Your task to perform on an android device: Clear the shopping cart on ebay.com. Add razer thresher to the cart on ebay.com, then select checkout. Image 0: 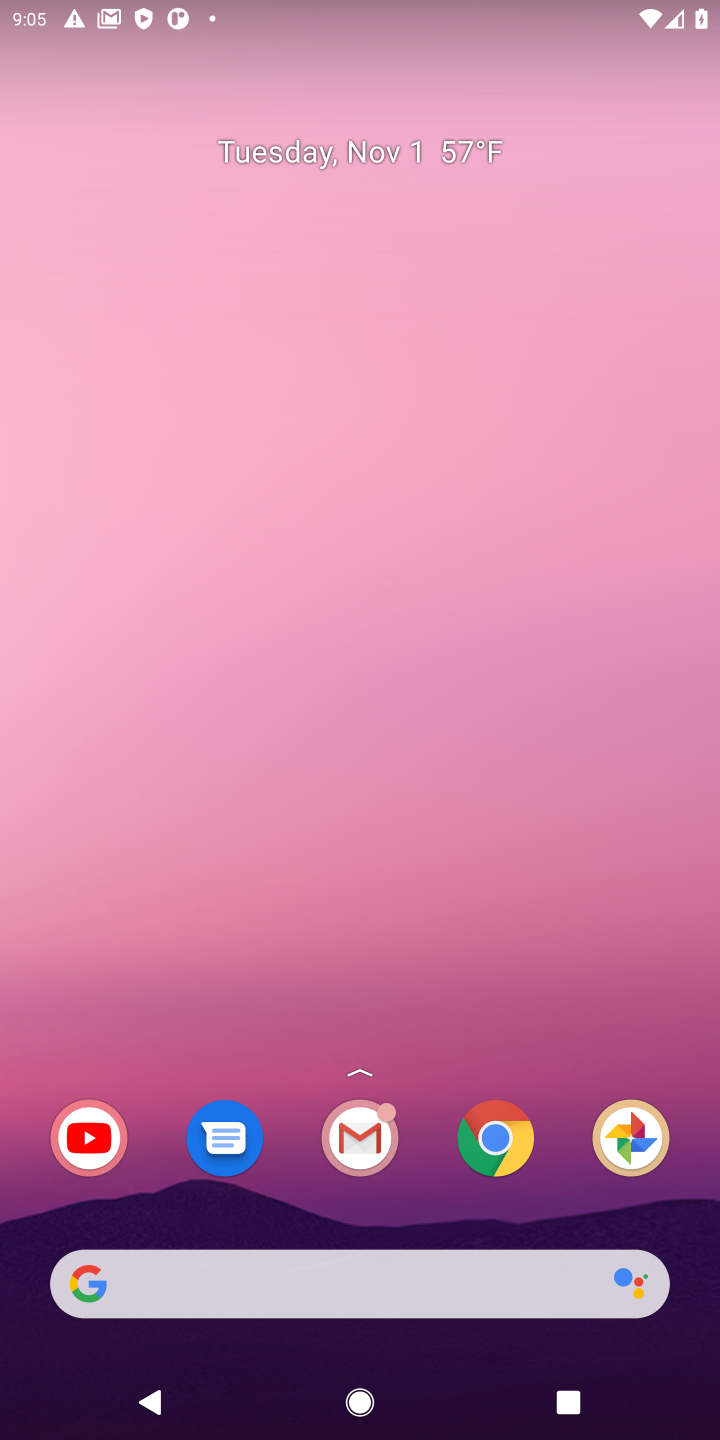
Step 0: click (516, 1150)
Your task to perform on an android device: Clear the shopping cart on ebay.com. Add razer thresher to the cart on ebay.com, then select checkout. Image 1: 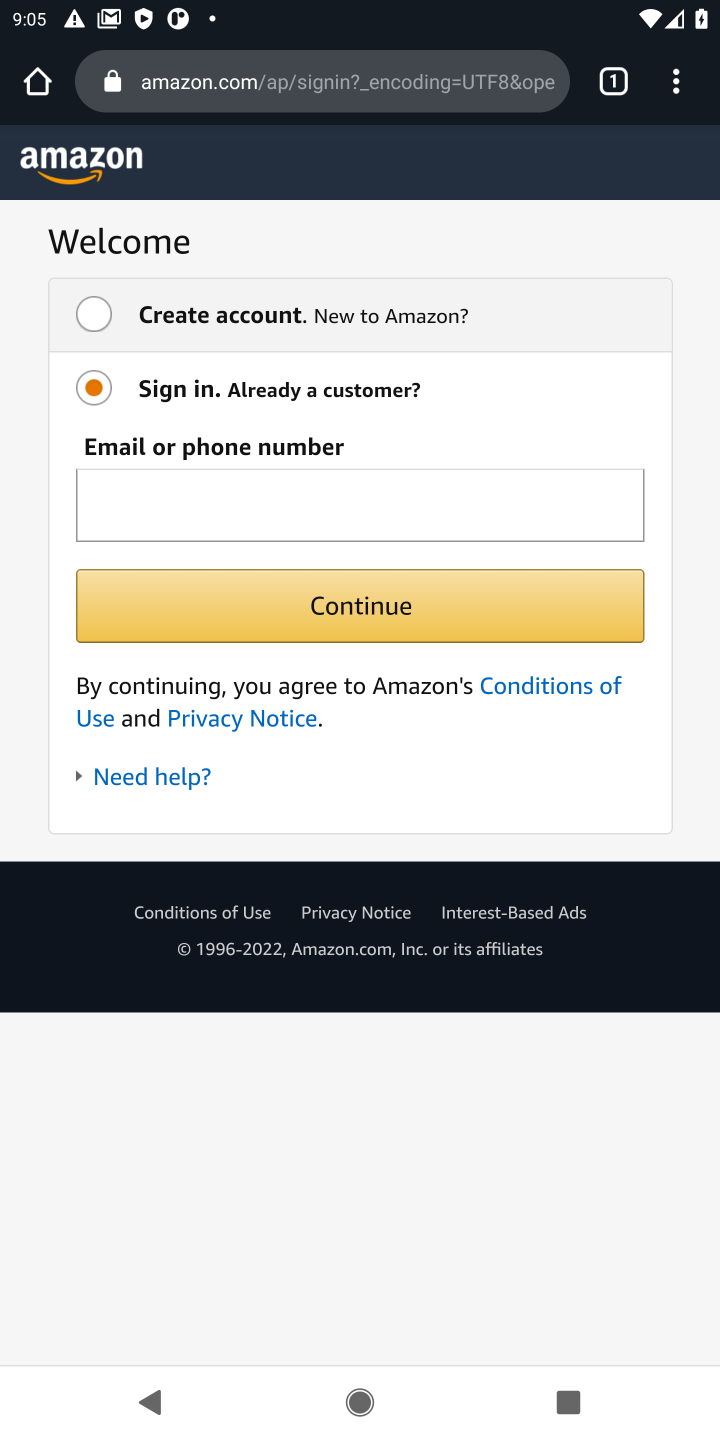
Step 1: click (298, 96)
Your task to perform on an android device: Clear the shopping cart on ebay.com. Add razer thresher to the cart on ebay.com, then select checkout. Image 2: 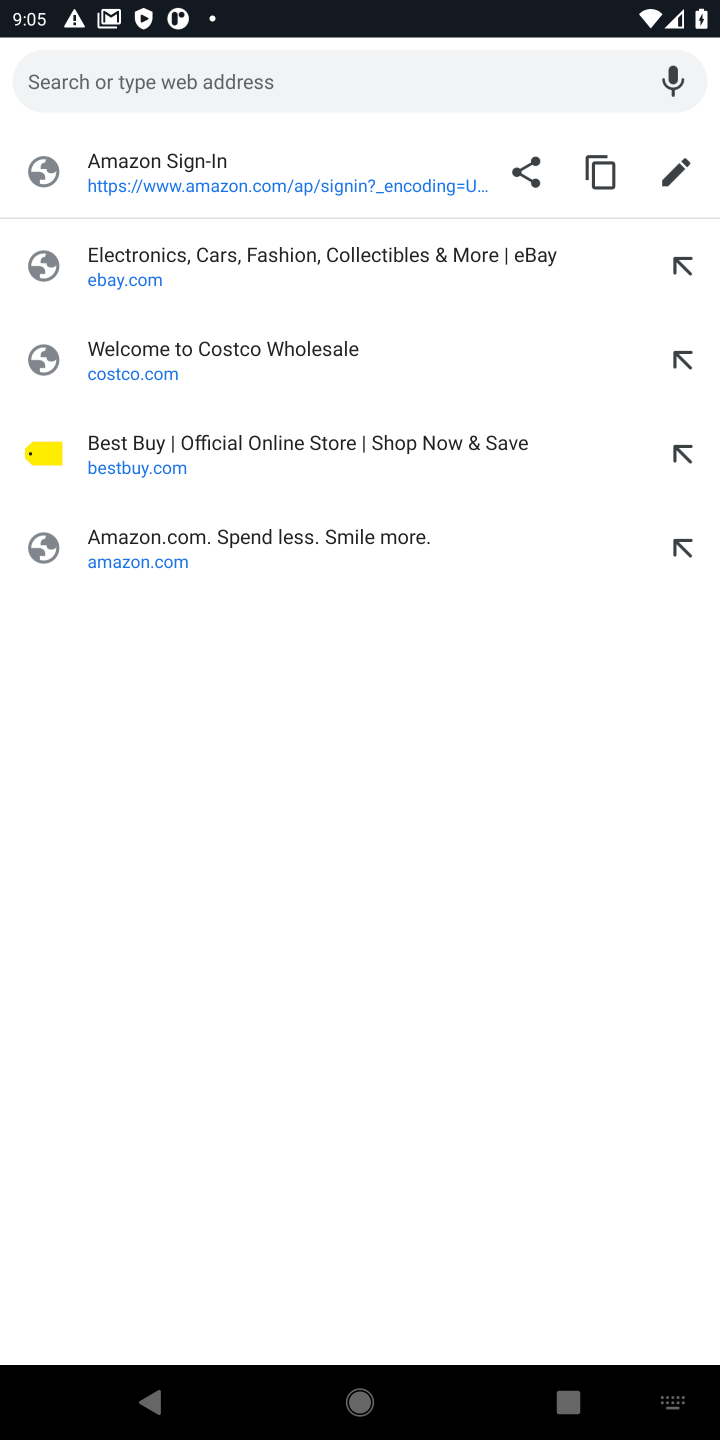
Step 2: type " ebay.com"
Your task to perform on an android device: Clear the shopping cart on ebay.com. Add razer thresher to the cart on ebay.com, then select checkout. Image 3: 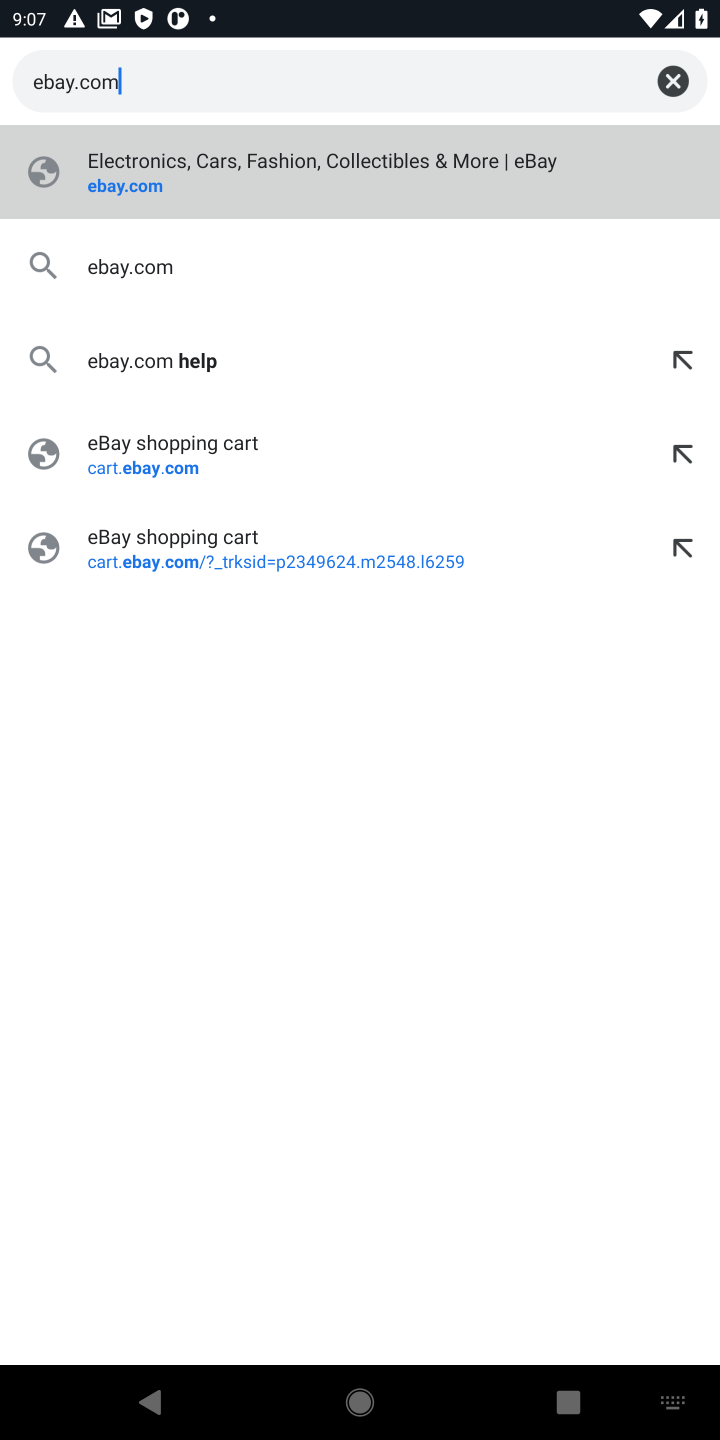
Step 3: click (85, 203)
Your task to perform on an android device: Clear the shopping cart on ebay.com. Add razer thresher to the cart on ebay.com, then select checkout. Image 4: 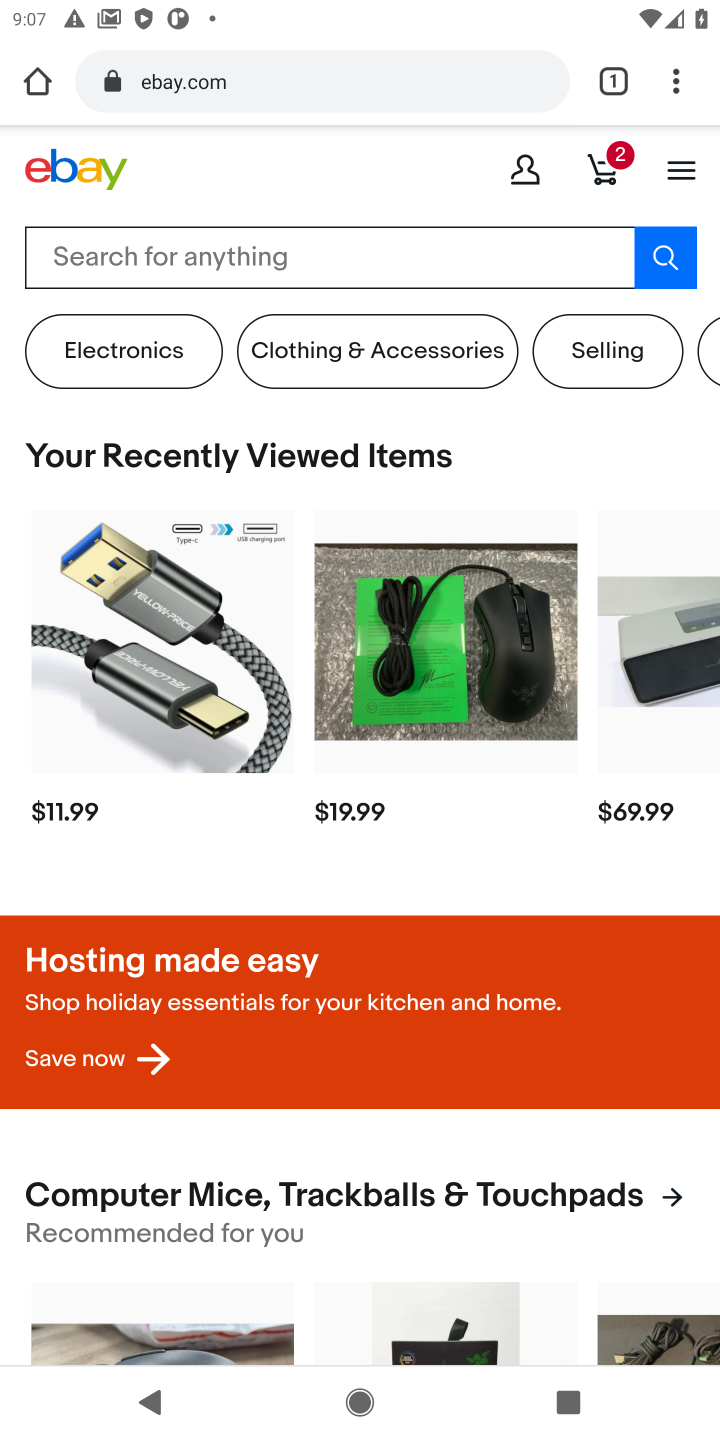
Step 4: click (617, 160)
Your task to perform on an android device: Clear the shopping cart on ebay.com. Add razer thresher to the cart on ebay.com, then select checkout. Image 5: 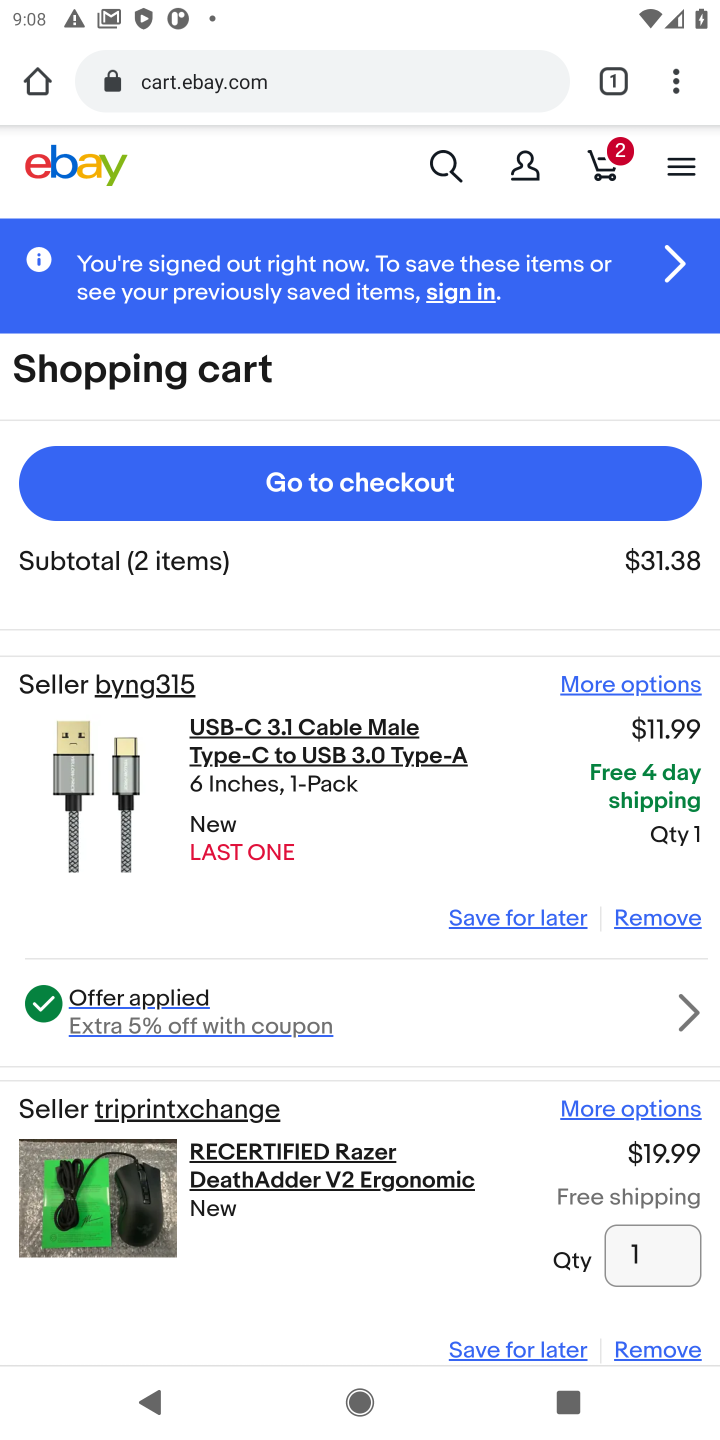
Step 5: click (640, 919)
Your task to perform on an android device: Clear the shopping cart on ebay.com. Add razer thresher to the cart on ebay.com, then select checkout. Image 6: 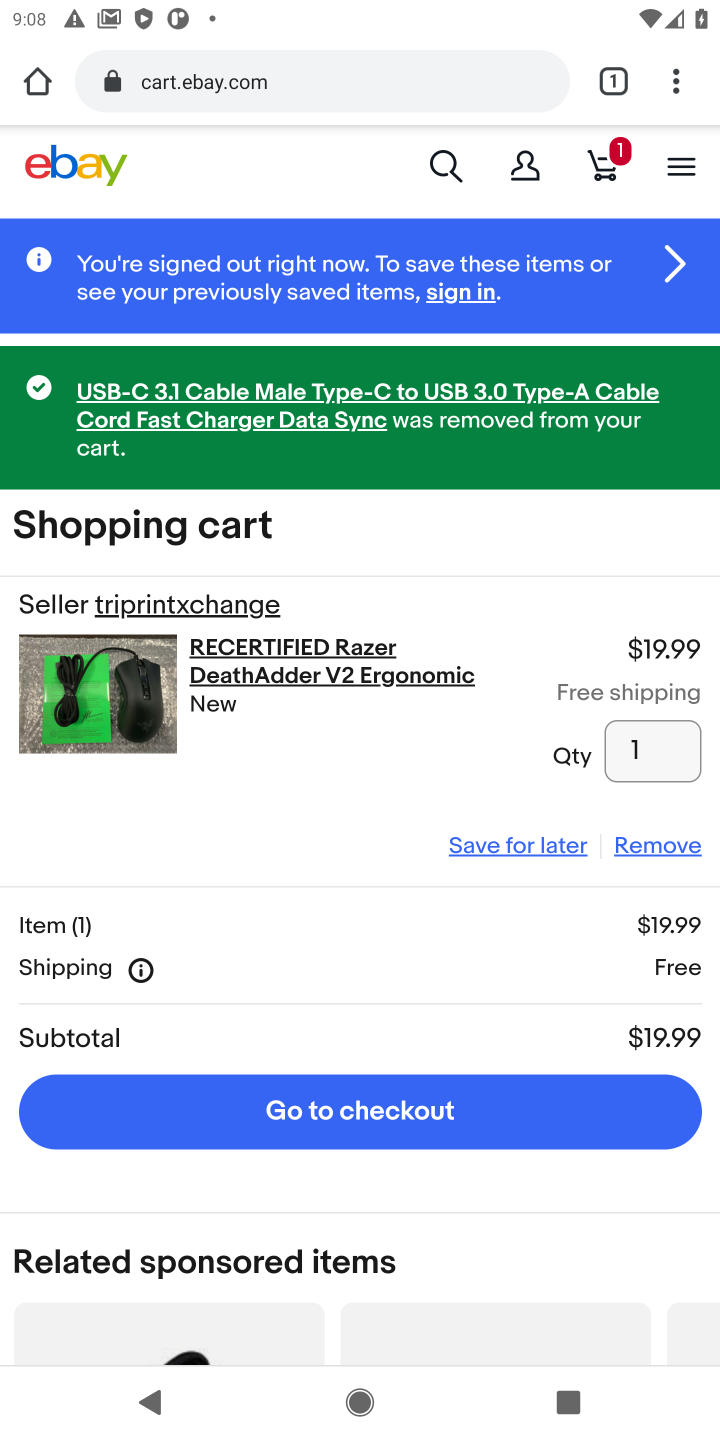
Step 6: click (647, 856)
Your task to perform on an android device: Clear the shopping cart on ebay.com. Add razer thresher to the cart on ebay.com, then select checkout. Image 7: 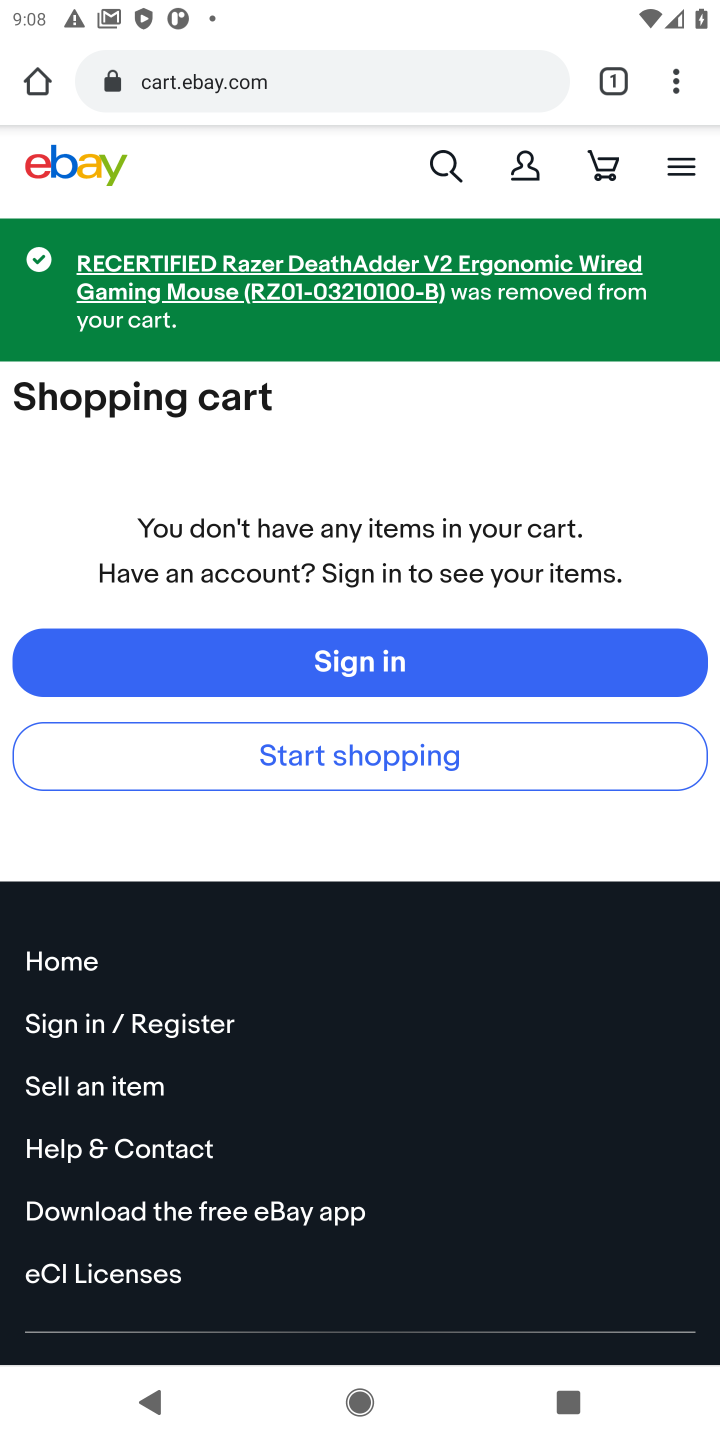
Step 7: click (447, 169)
Your task to perform on an android device: Clear the shopping cart on ebay.com. Add razer thresher to the cart on ebay.com, then select checkout. Image 8: 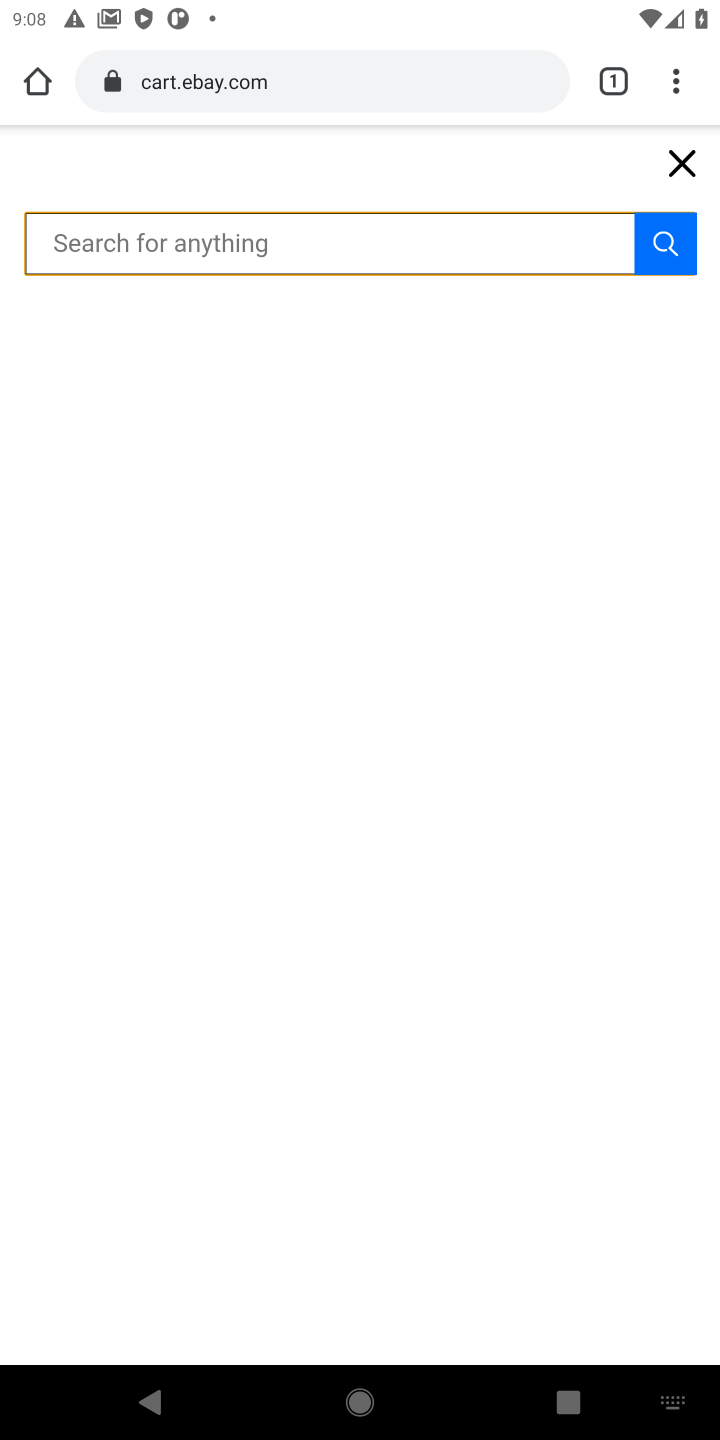
Step 8: type "razer thresher"
Your task to perform on an android device: Clear the shopping cart on ebay.com. Add razer thresher to the cart on ebay.com, then select checkout. Image 9: 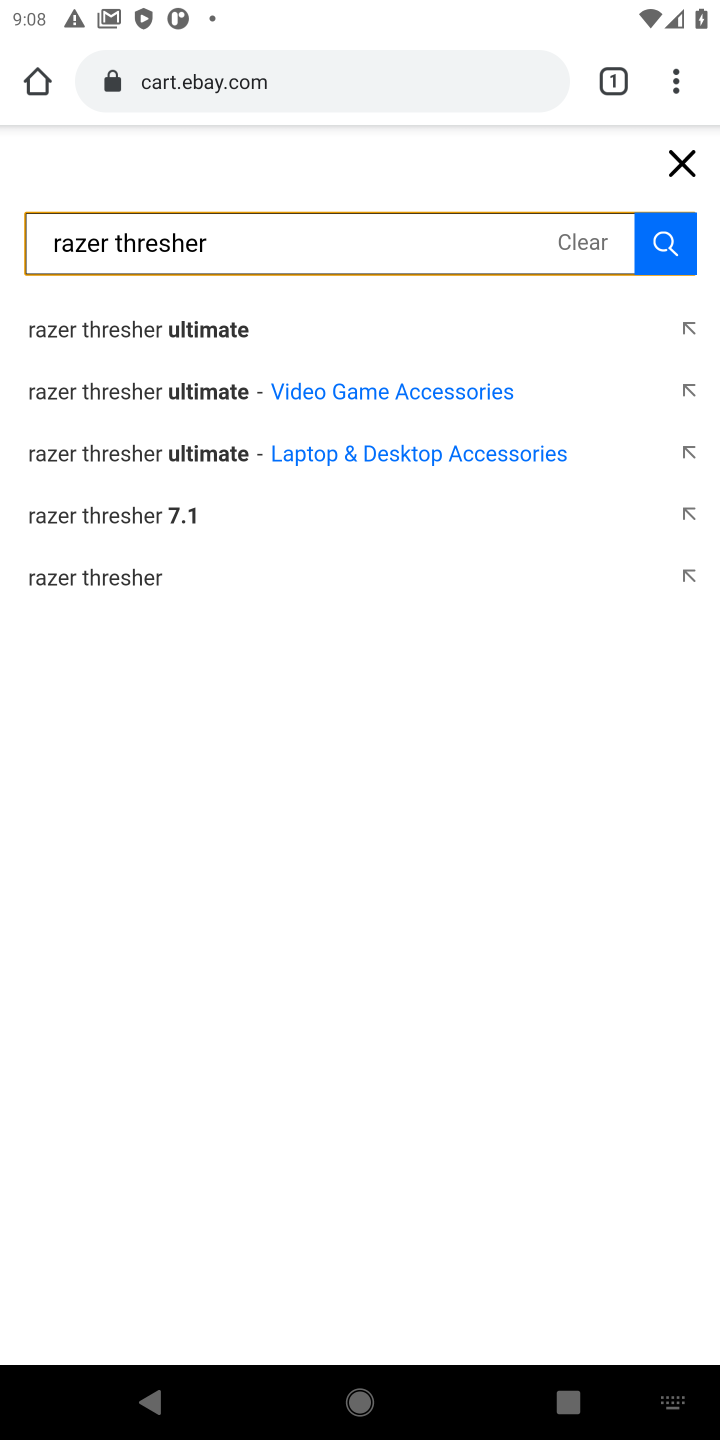
Step 9: click (660, 245)
Your task to perform on an android device: Clear the shopping cart on ebay.com. Add razer thresher to the cart on ebay.com, then select checkout. Image 10: 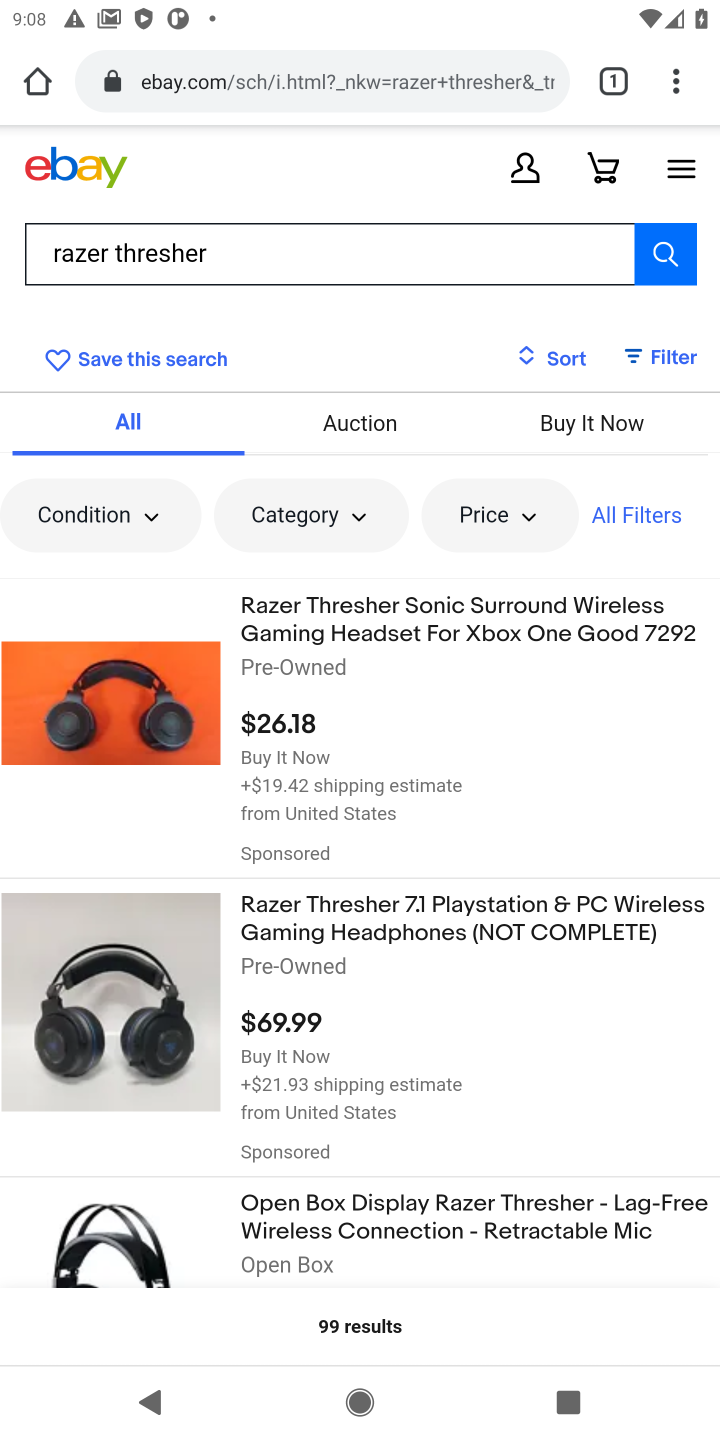
Step 10: click (279, 683)
Your task to perform on an android device: Clear the shopping cart on ebay.com. Add razer thresher to the cart on ebay.com, then select checkout. Image 11: 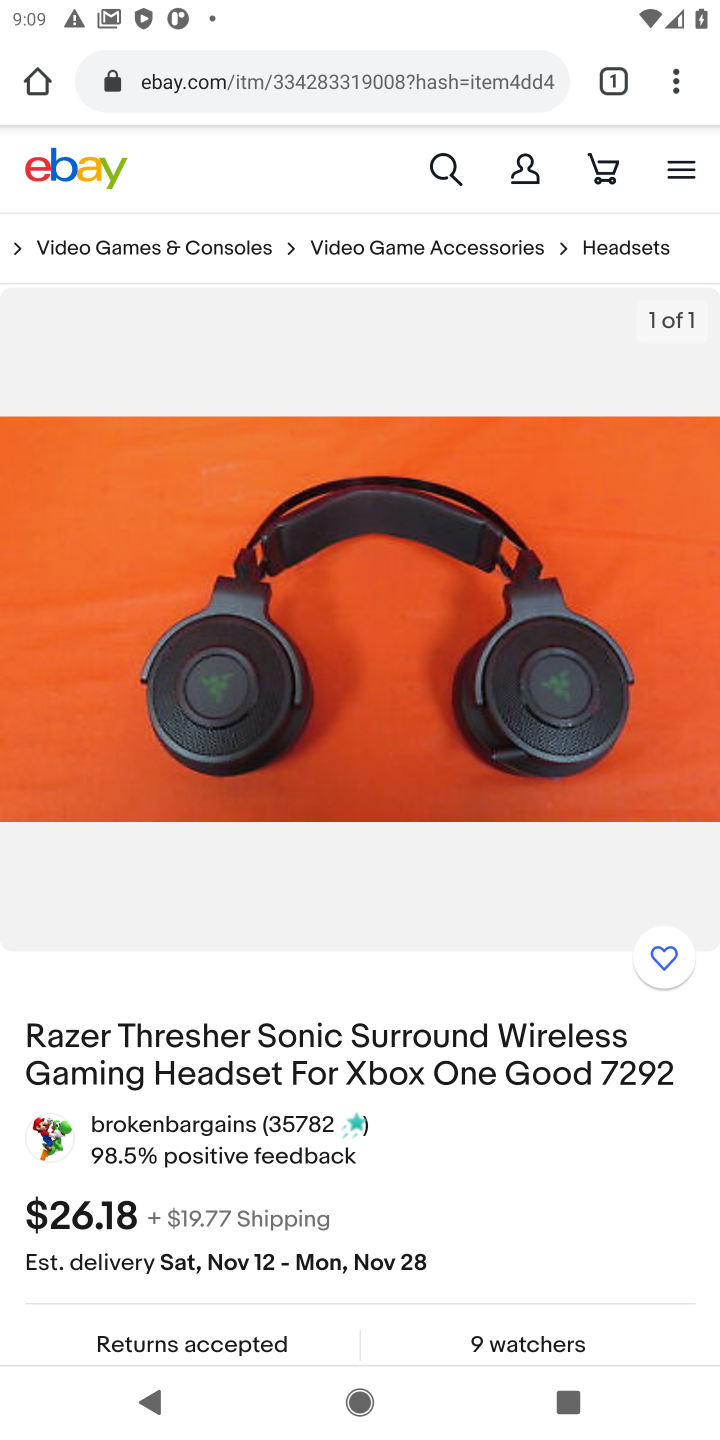
Step 11: drag from (313, 1111) to (342, 478)
Your task to perform on an android device: Clear the shopping cart on ebay.com. Add razer thresher to the cart on ebay.com, then select checkout. Image 12: 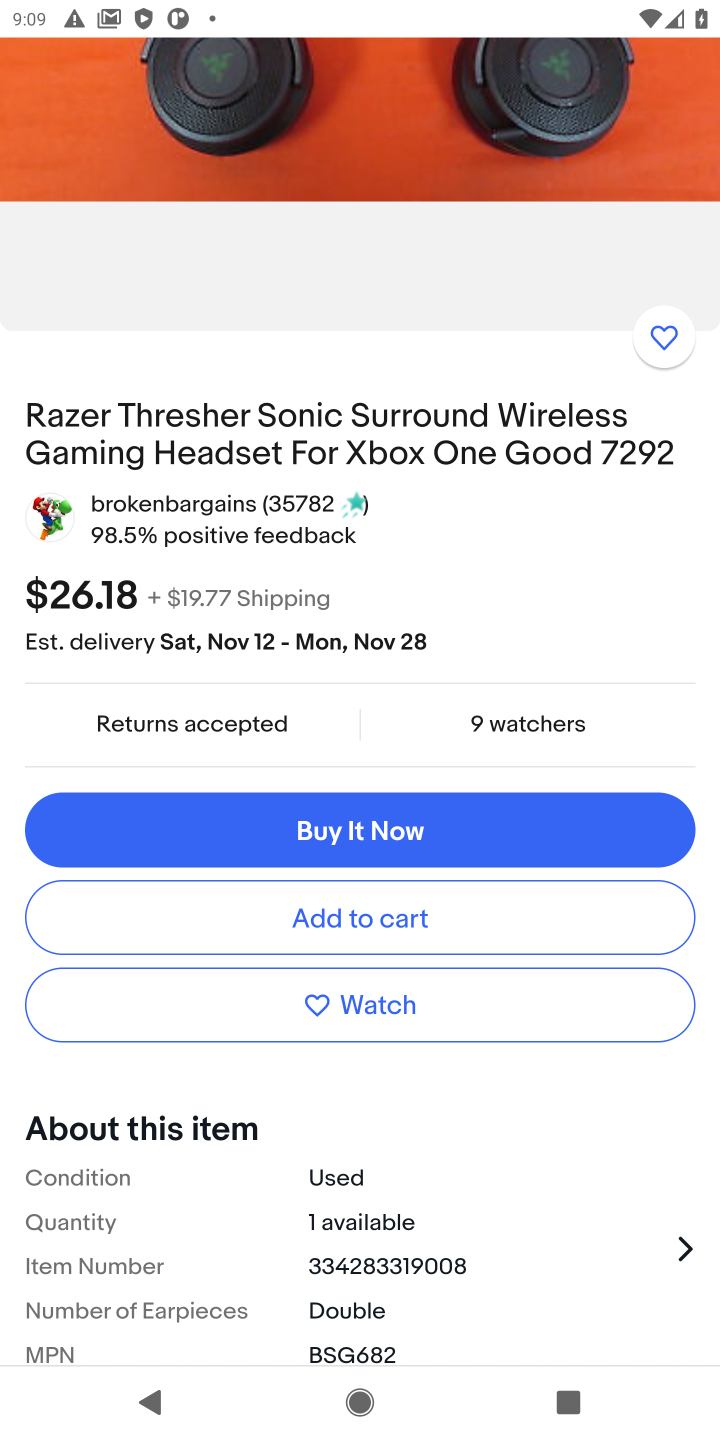
Step 12: click (343, 938)
Your task to perform on an android device: Clear the shopping cart on ebay.com. Add razer thresher to the cart on ebay.com, then select checkout. Image 13: 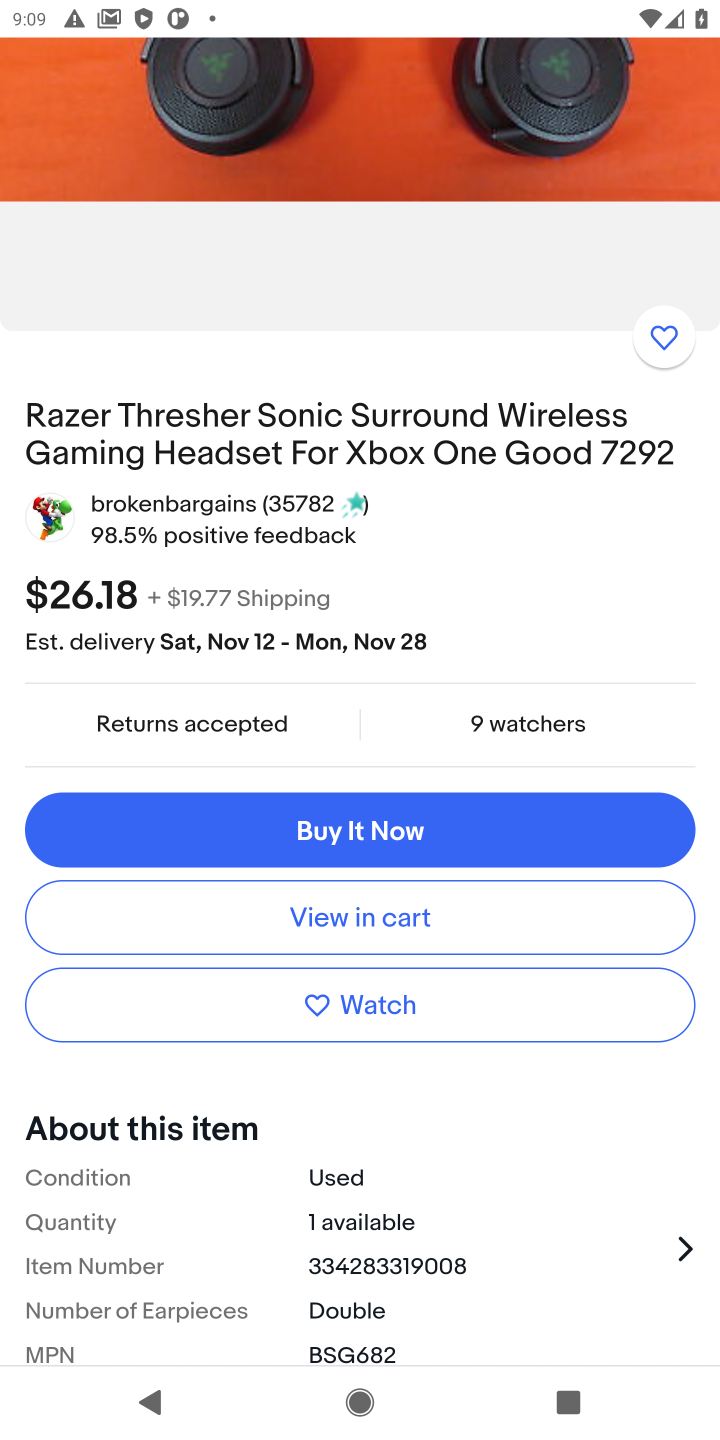
Step 13: click (343, 934)
Your task to perform on an android device: Clear the shopping cart on ebay.com. Add razer thresher to the cart on ebay.com, then select checkout. Image 14: 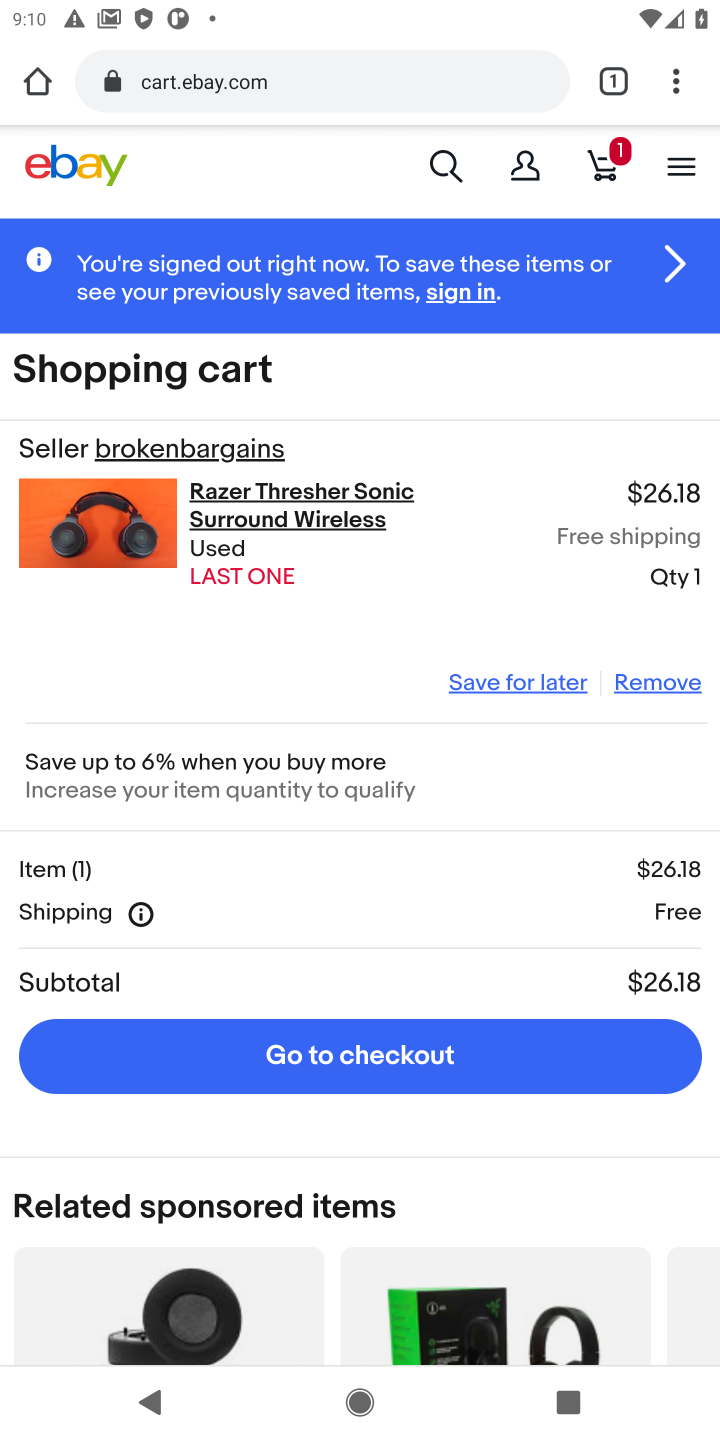
Step 14: click (343, 1053)
Your task to perform on an android device: Clear the shopping cart on ebay.com. Add razer thresher to the cart on ebay.com, then select checkout. Image 15: 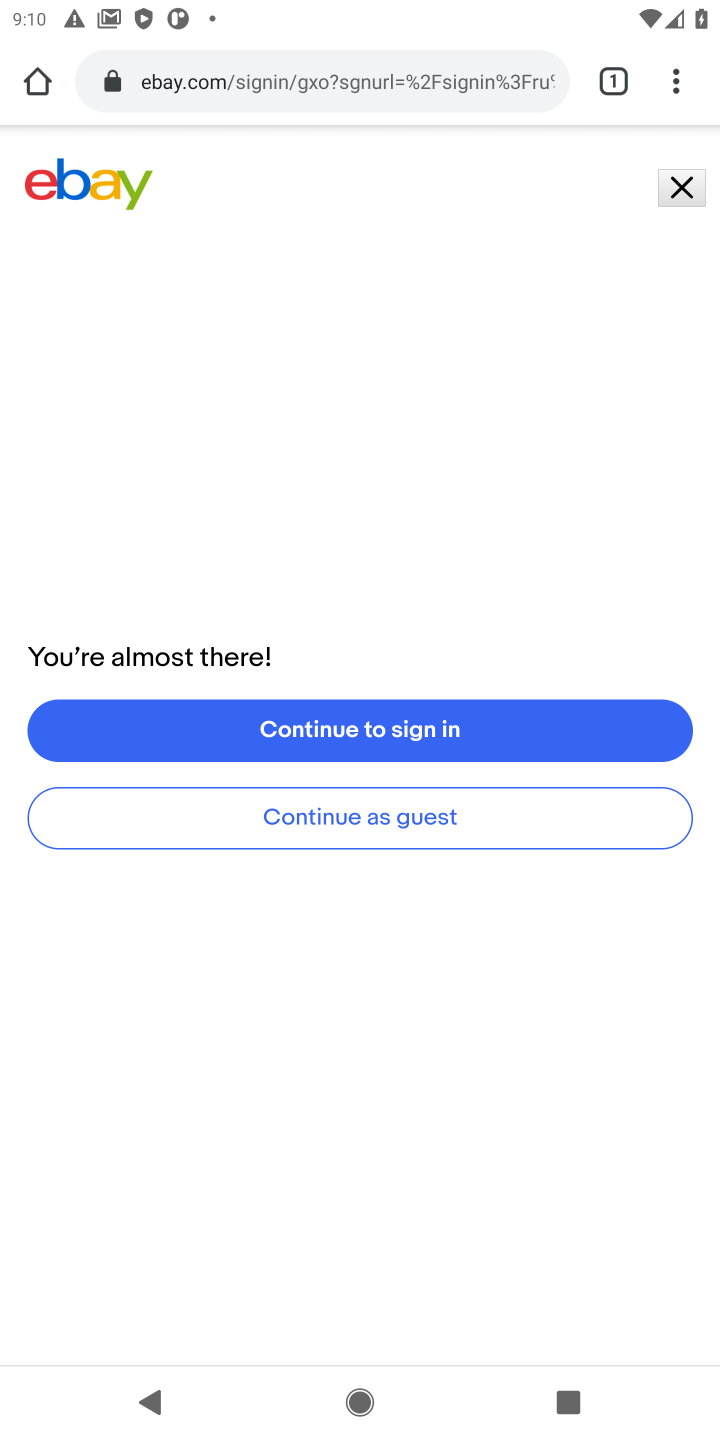
Step 15: task complete